Your task to perform on an android device: What's the weather? Image 0: 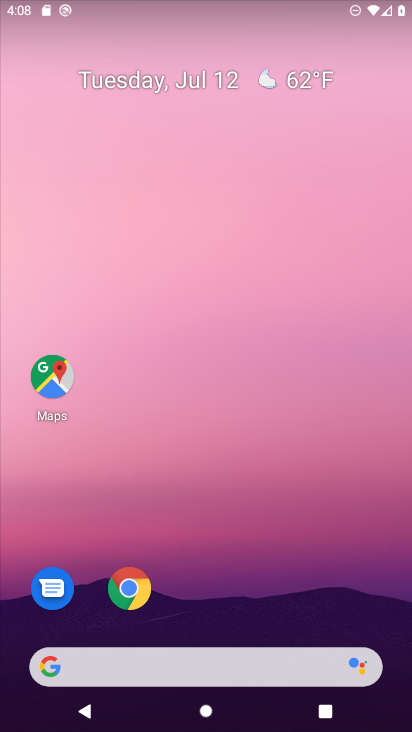
Step 0: click (195, 664)
Your task to perform on an android device: What's the weather? Image 1: 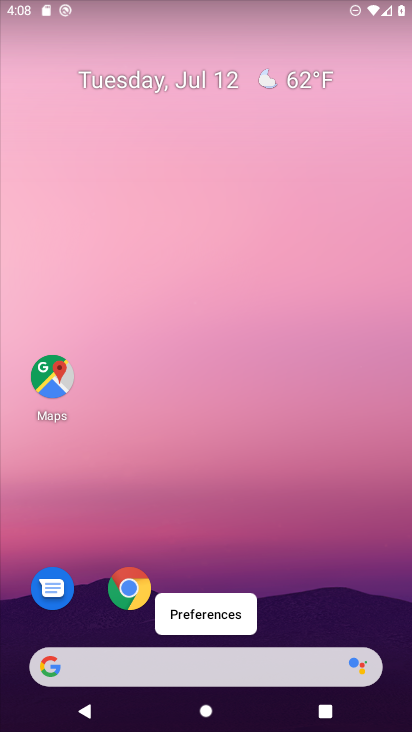
Step 1: click (202, 668)
Your task to perform on an android device: What's the weather? Image 2: 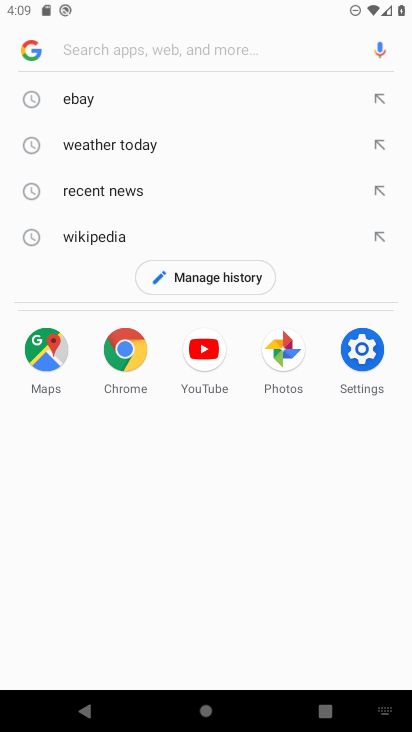
Step 2: click (153, 149)
Your task to perform on an android device: What's the weather? Image 3: 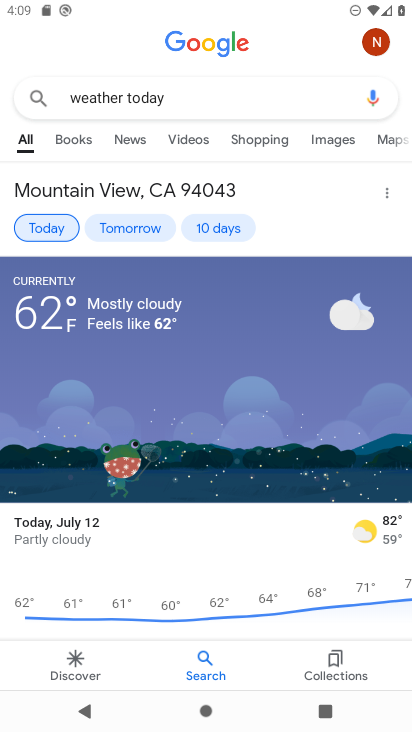
Step 3: task complete